Your task to perform on an android device: Open display settings Image 0: 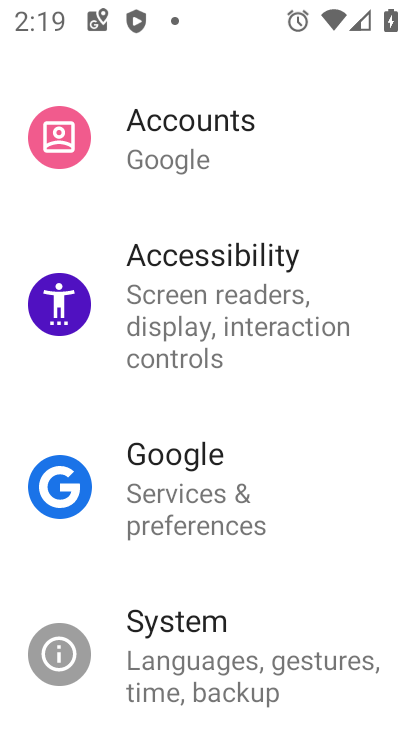
Step 0: press home button
Your task to perform on an android device: Open display settings Image 1: 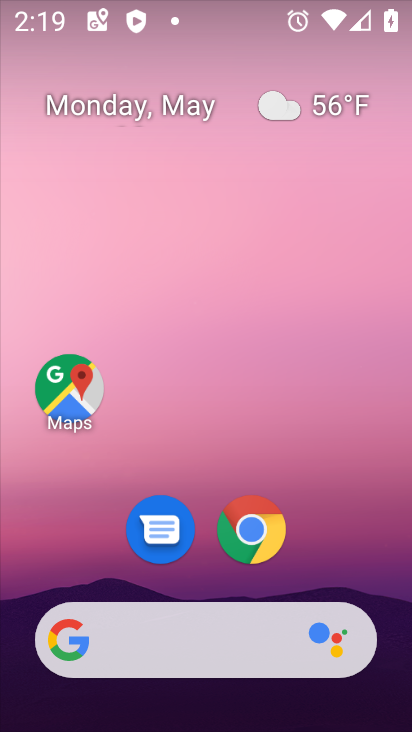
Step 1: drag from (332, 578) to (290, 57)
Your task to perform on an android device: Open display settings Image 2: 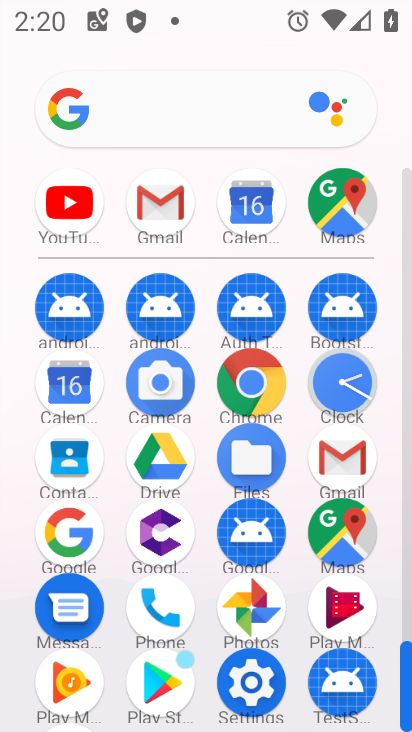
Step 2: click (242, 678)
Your task to perform on an android device: Open display settings Image 3: 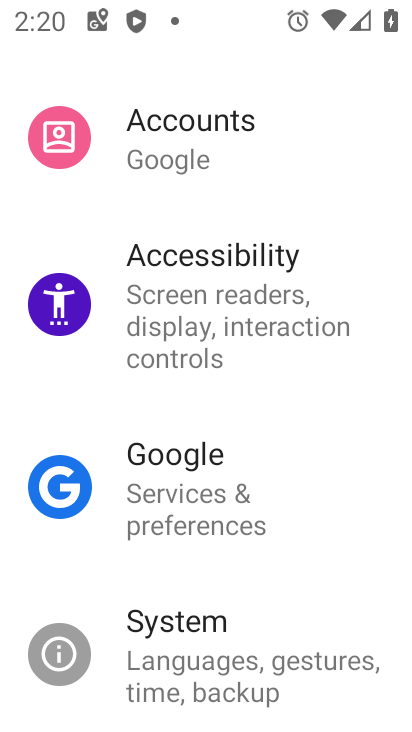
Step 3: drag from (181, 340) to (231, 543)
Your task to perform on an android device: Open display settings Image 4: 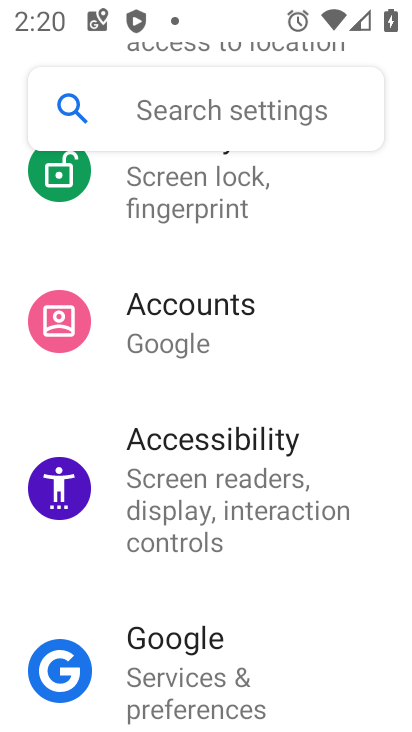
Step 4: drag from (228, 318) to (241, 466)
Your task to perform on an android device: Open display settings Image 5: 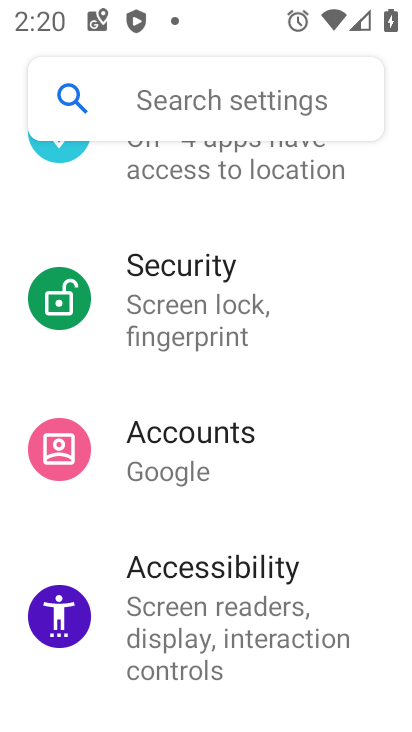
Step 5: drag from (206, 250) to (193, 449)
Your task to perform on an android device: Open display settings Image 6: 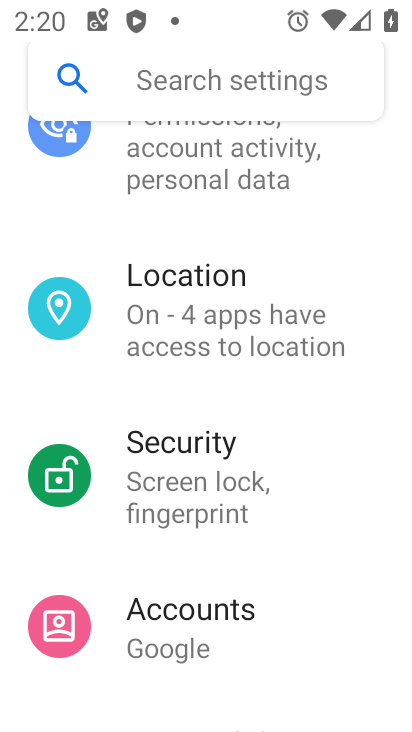
Step 6: drag from (186, 271) to (200, 482)
Your task to perform on an android device: Open display settings Image 7: 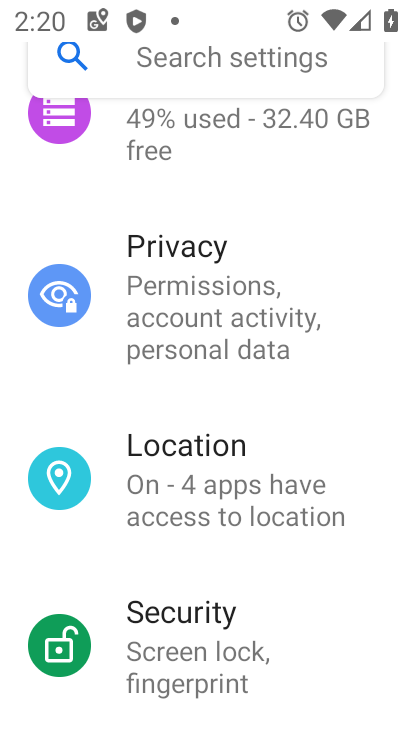
Step 7: drag from (202, 199) to (207, 383)
Your task to perform on an android device: Open display settings Image 8: 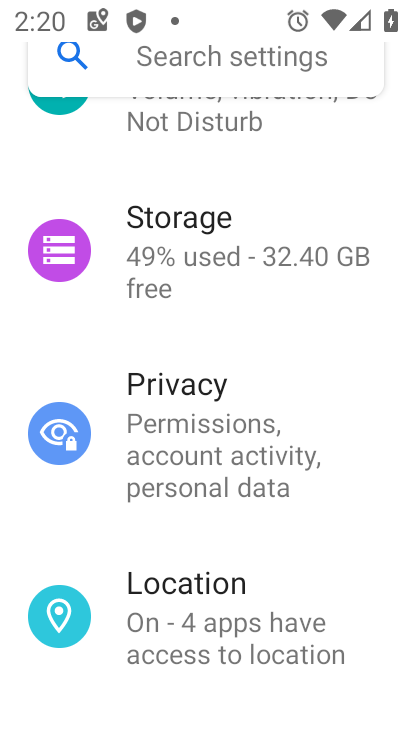
Step 8: drag from (180, 197) to (187, 338)
Your task to perform on an android device: Open display settings Image 9: 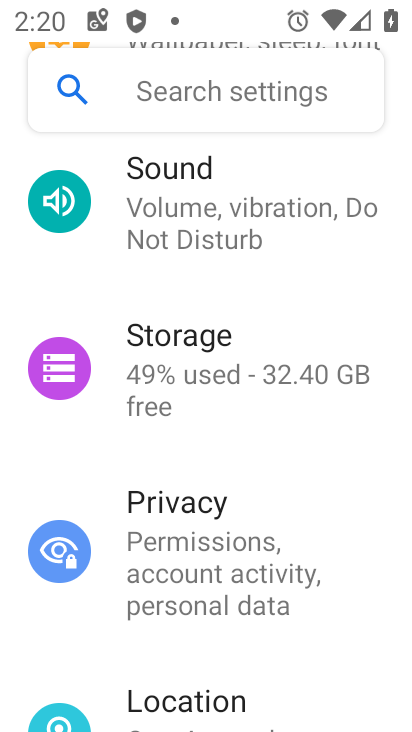
Step 9: drag from (220, 255) to (251, 485)
Your task to perform on an android device: Open display settings Image 10: 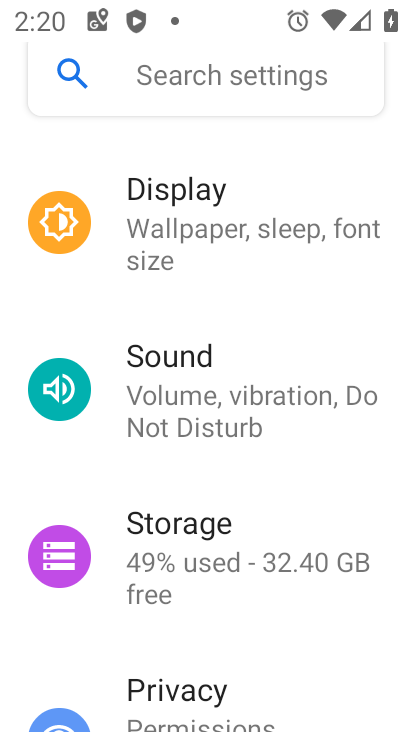
Step 10: click (179, 240)
Your task to perform on an android device: Open display settings Image 11: 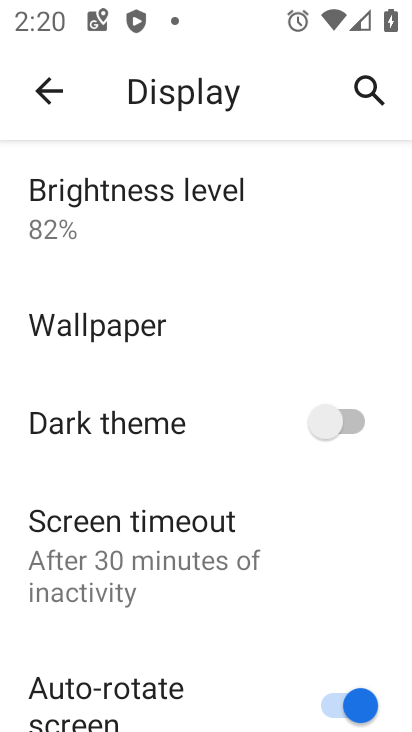
Step 11: task complete